Your task to perform on an android device: turn pop-ups on in chrome Image 0: 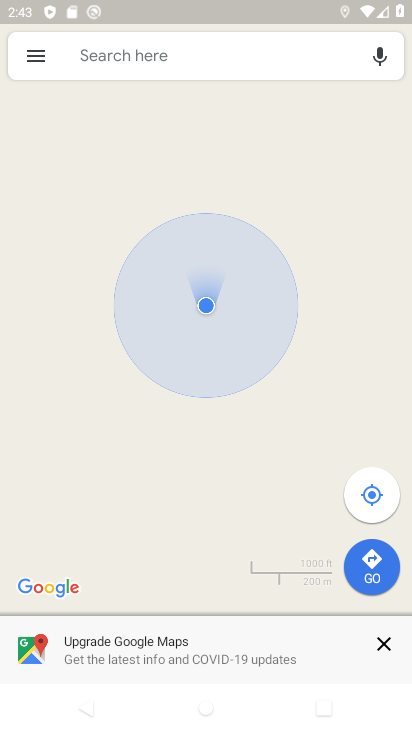
Step 0: press back button
Your task to perform on an android device: turn pop-ups on in chrome Image 1: 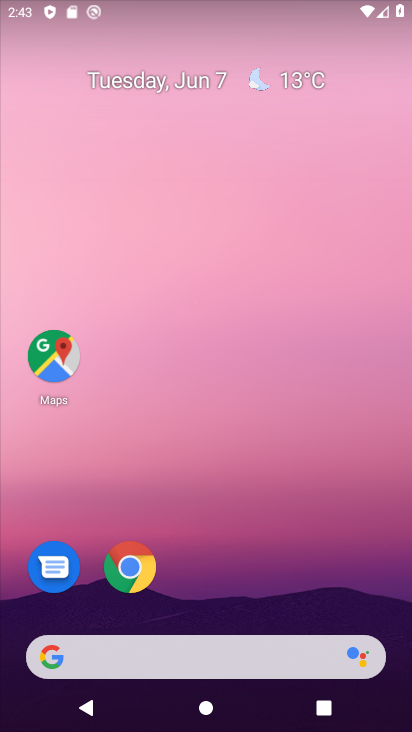
Step 1: click (126, 577)
Your task to perform on an android device: turn pop-ups on in chrome Image 2: 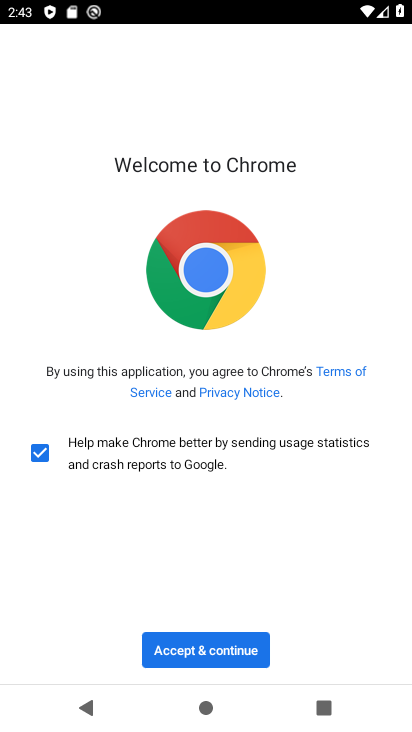
Step 2: click (195, 639)
Your task to perform on an android device: turn pop-ups on in chrome Image 3: 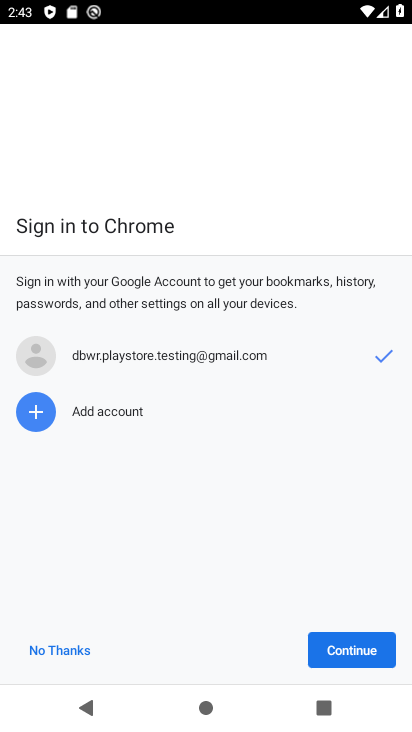
Step 3: click (356, 657)
Your task to perform on an android device: turn pop-ups on in chrome Image 4: 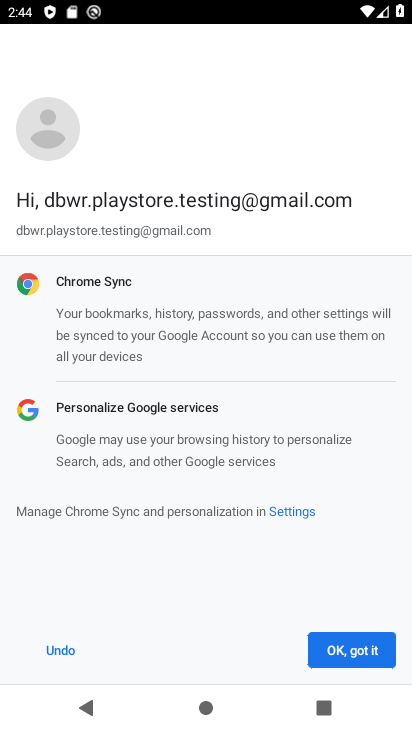
Step 4: click (336, 646)
Your task to perform on an android device: turn pop-ups on in chrome Image 5: 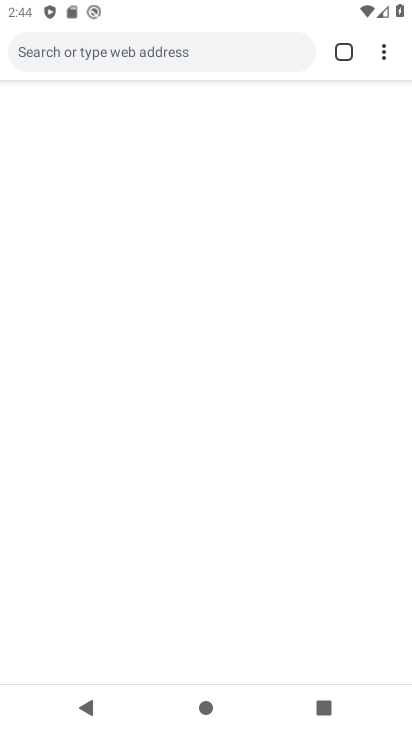
Step 5: drag from (380, 57) to (194, 432)
Your task to perform on an android device: turn pop-ups on in chrome Image 6: 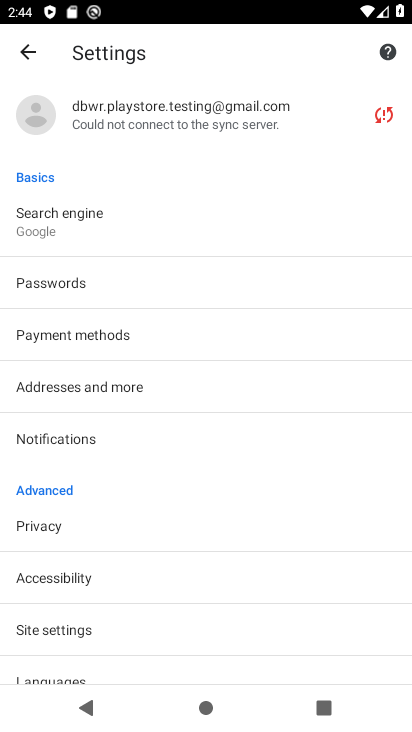
Step 6: click (72, 633)
Your task to perform on an android device: turn pop-ups on in chrome Image 7: 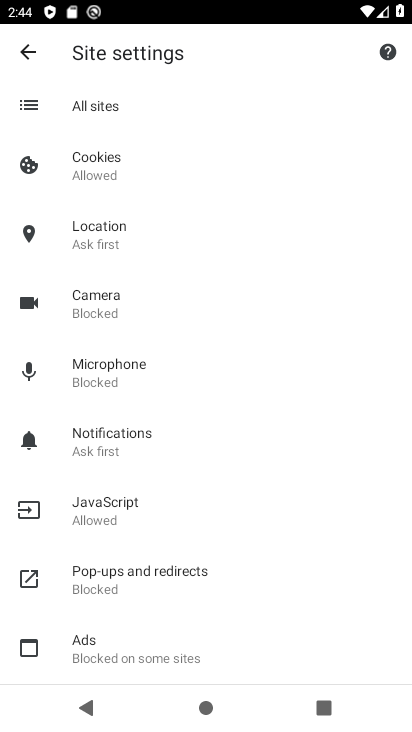
Step 7: click (124, 575)
Your task to perform on an android device: turn pop-ups on in chrome Image 8: 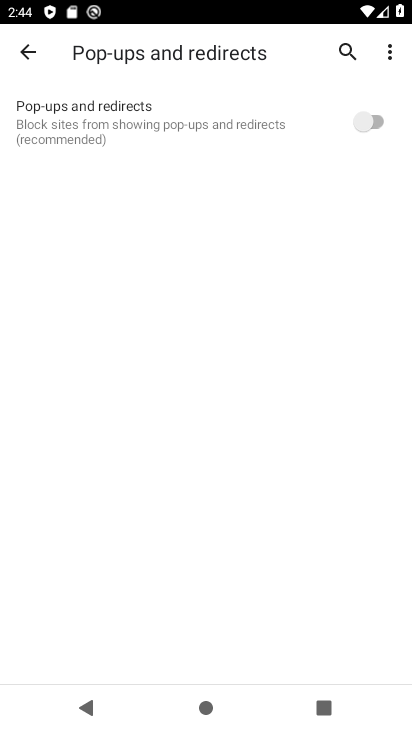
Step 8: click (364, 123)
Your task to perform on an android device: turn pop-ups on in chrome Image 9: 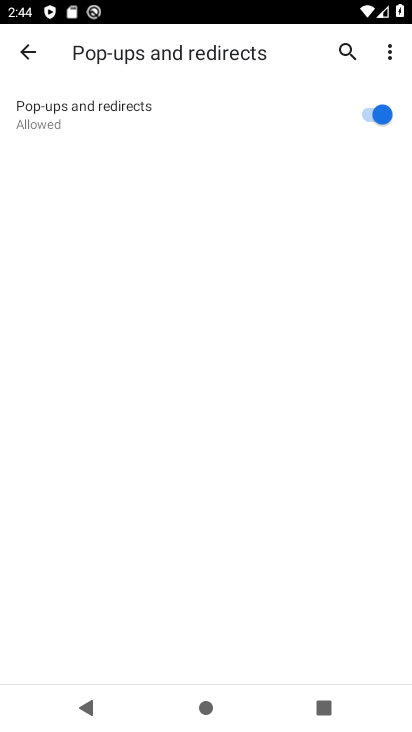
Step 9: task complete